Your task to perform on an android device: all mails in gmail Image 0: 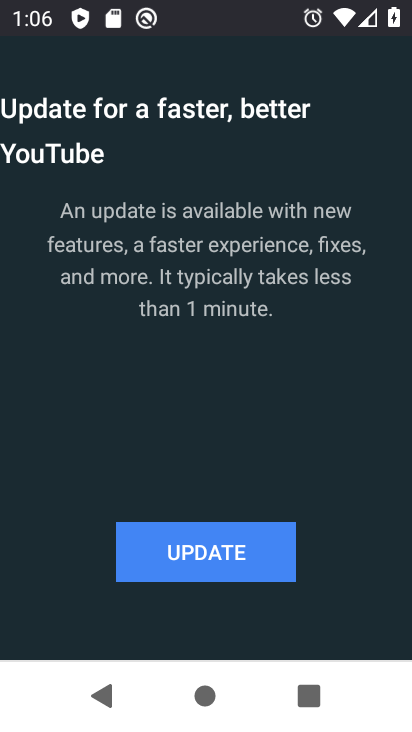
Step 0: press home button
Your task to perform on an android device: all mails in gmail Image 1: 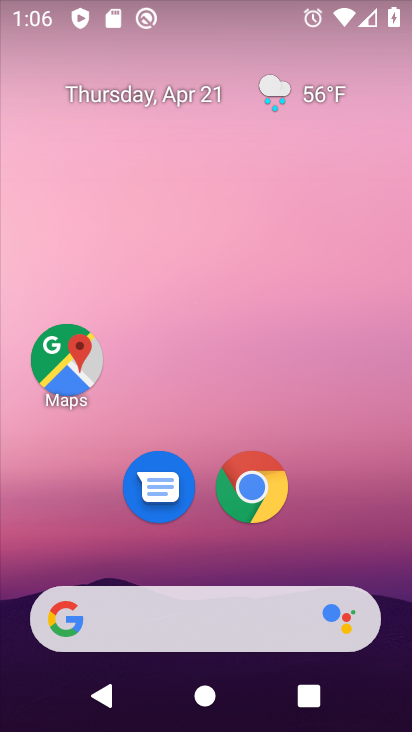
Step 1: drag from (342, 470) to (281, 123)
Your task to perform on an android device: all mails in gmail Image 2: 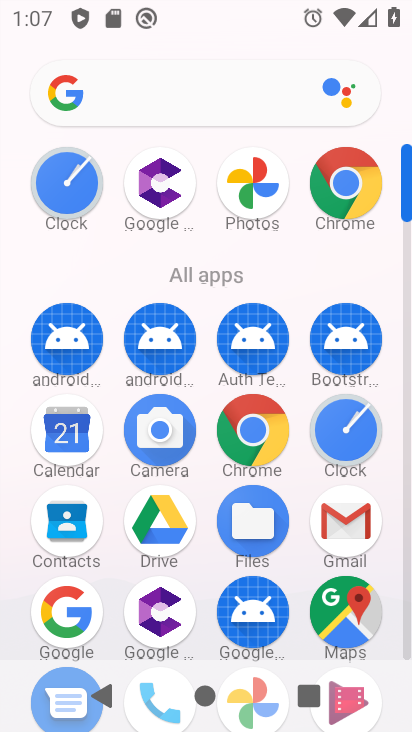
Step 2: click (342, 522)
Your task to perform on an android device: all mails in gmail Image 3: 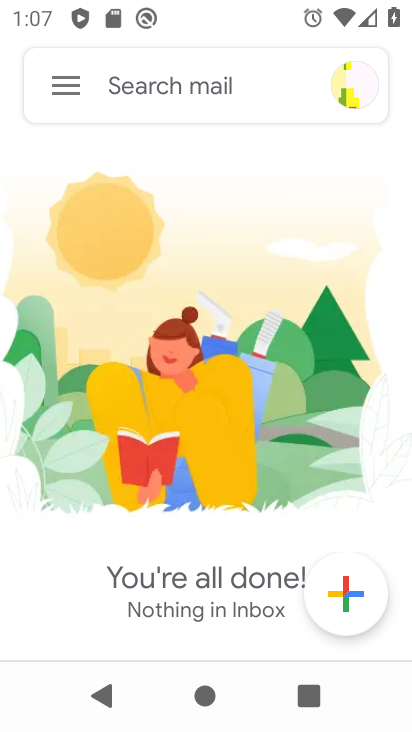
Step 3: click (65, 87)
Your task to perform on an android device: all mails in gmail Image 4: 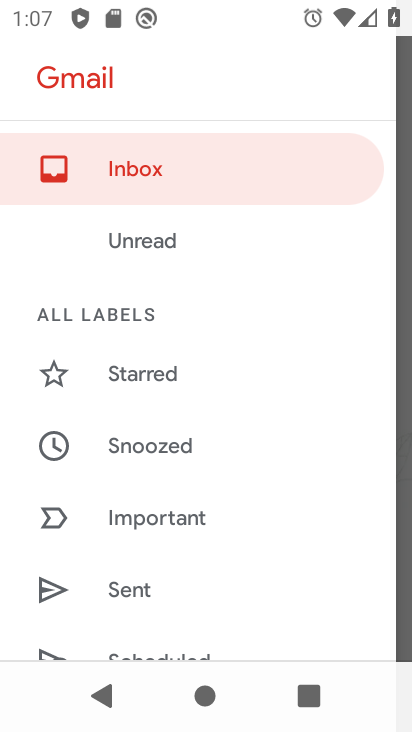
Step 4: drag from (205, 569) to (210, 238)
Your task to perform on an android device: all mails in gmail Image 5: 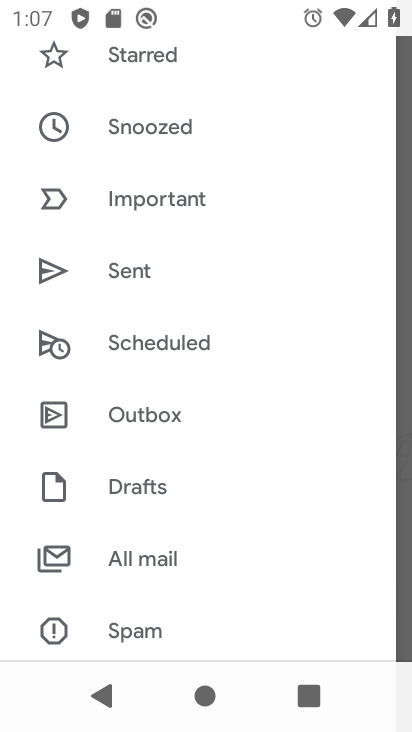
Step 5: click (130, 565)
Your task to perform on an android device: all mails in gmail Image 6: 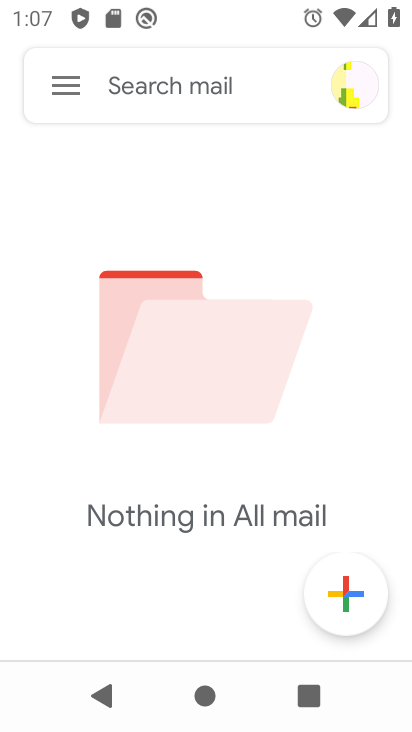
Step 6: task complete